Your task to perform on an android device: How do I get to the nearest Macy's? Image 0: 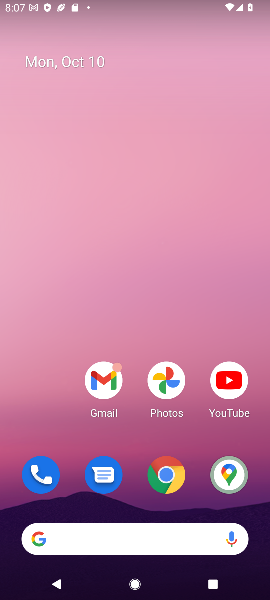
Step 0: click (157, 475)
Your task to perform on an android device: How do I get to the nearest Macy's? Image 1: 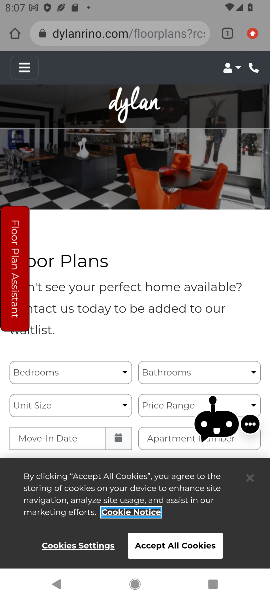
Step 1: click (121, 34)
Your task to perform on an android device: How do I get to the nearest Macy's? Image 2: 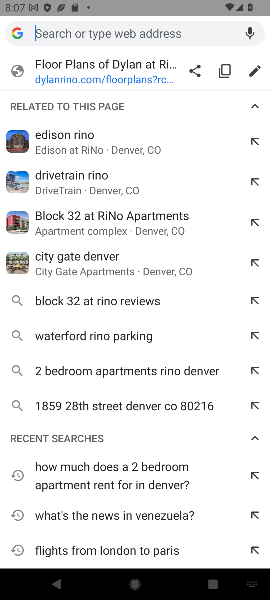
Step 2: type "How do I get to the nearest Macy's?"
Your task to perform on an android device: How do I get to the nearest Macy's? Image 3: 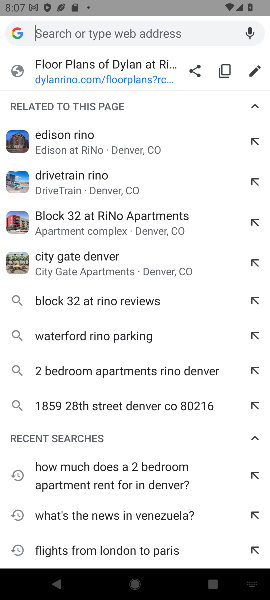
Step 3: click (142, 31)
Your task to perform on an android device: How do I get to the nearest Macy's? Image 4: 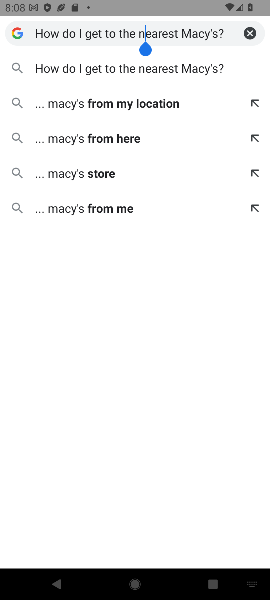
Step 4: click (120, 71)
Your task to perform on an android device: How do I get to the nearest Macy's? Image 5: 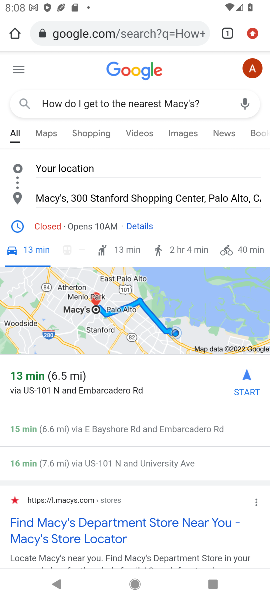
Step 5: task complete